Your task to perform on an android device: delete a single message in the gmail app Image 0: 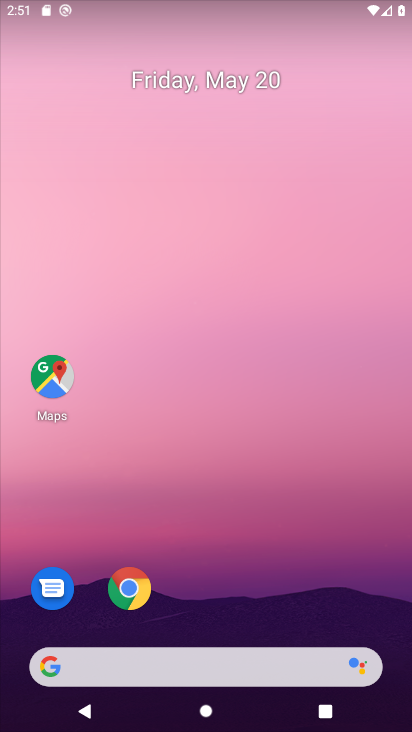
Step 0: drag from (248, 607) to (301, 153)
Your task to perform on an android device: delete a single message in the gmail app Image 1: 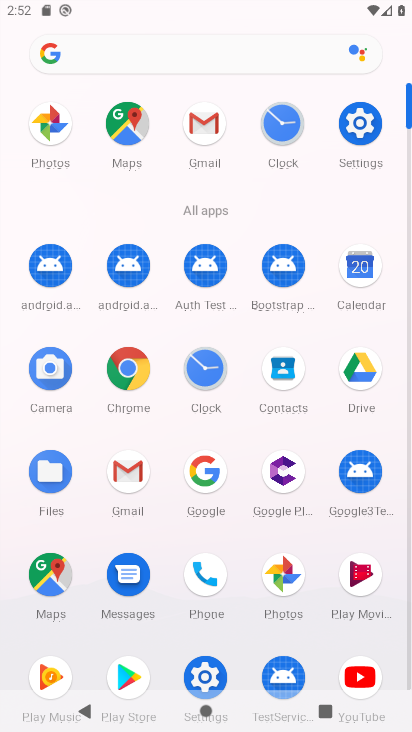
Step 1: click (207, 116)
Your task to perform on an android device: delete a single message in the gmail app Image 2: 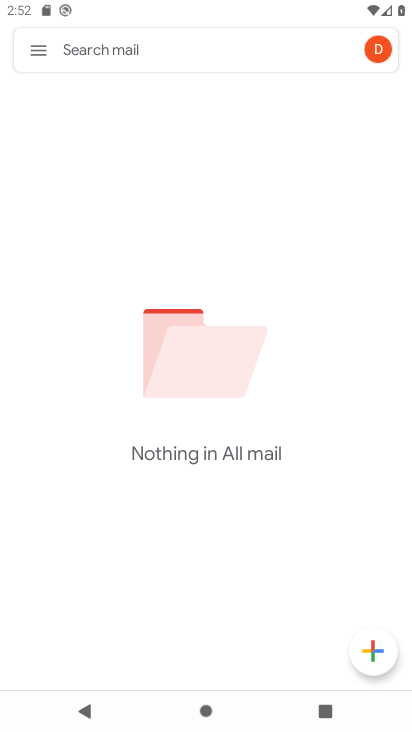
Step 2: task complete